Your task to perform on an android device: Open Google Chrome Image 0: 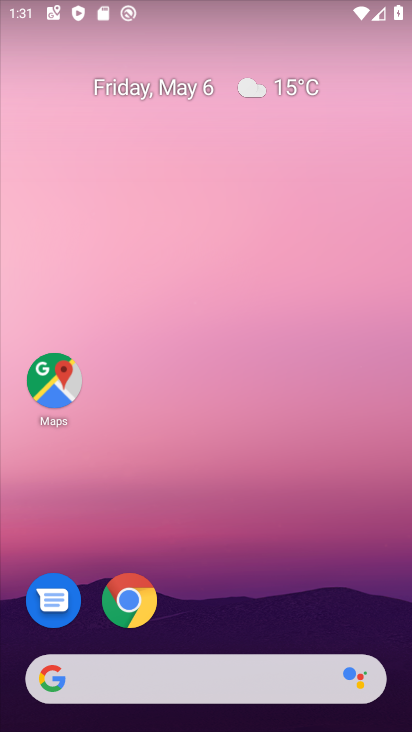
Step 0: drag from (332, 609) to (343, 69)
Your task to perform on an android device: Open Google Chrome Image 1: 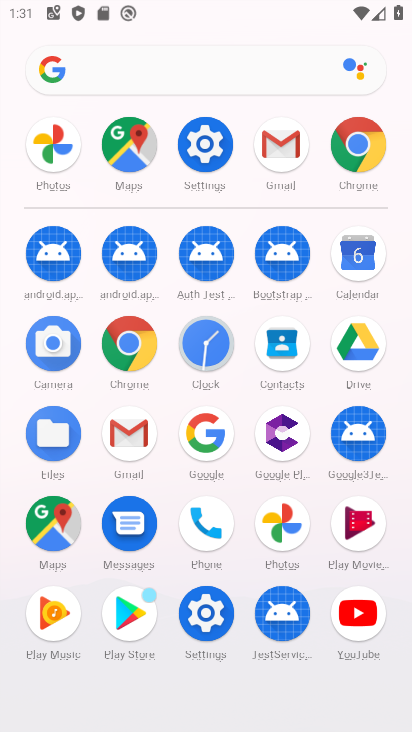
Step 1: click (148, 357)
Your task to perform on an android device: Open Google Chrome Image 2: 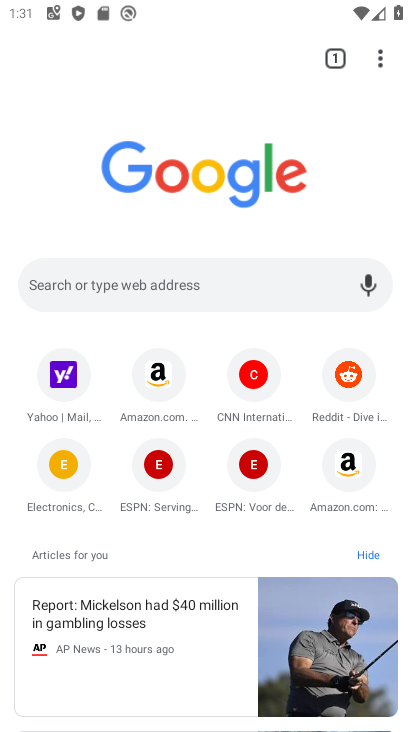
Step 2: task complete